Your task to perform on an android device: change the clock display to show seconds Image 0: 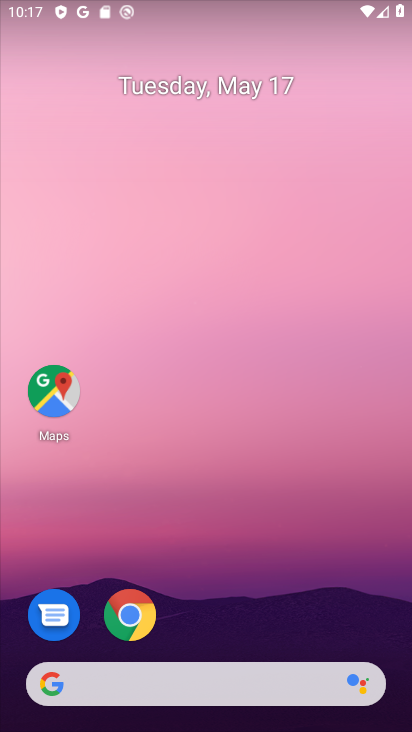
Step 0: drag from (248, 604) to (122, 97)
Your task to perform on an android device: change the clock display to show seconds Image 1: 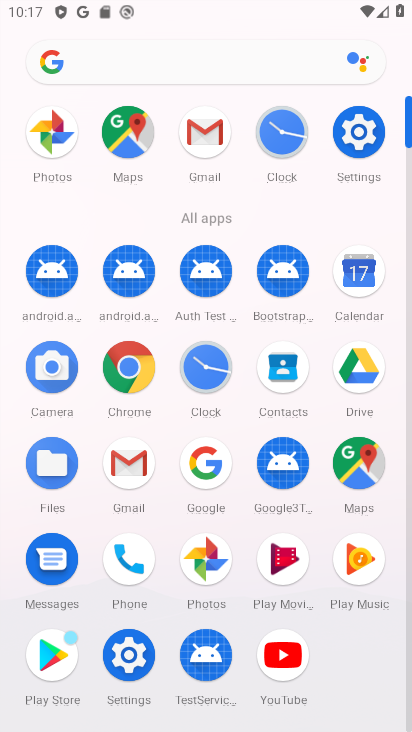
Step 1: click (281, 136)
Your task to perform on an android device: change the clock display to show seconds Image 2: 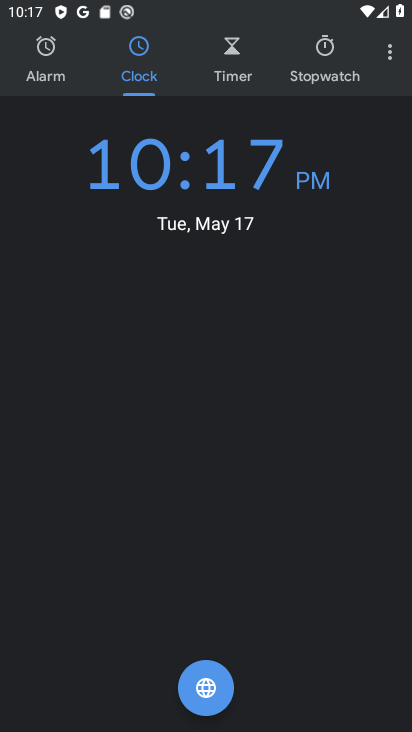
Step 2: click (387, 49)
Your task to perform on an android device: change the clock display to show seconds Image 3: 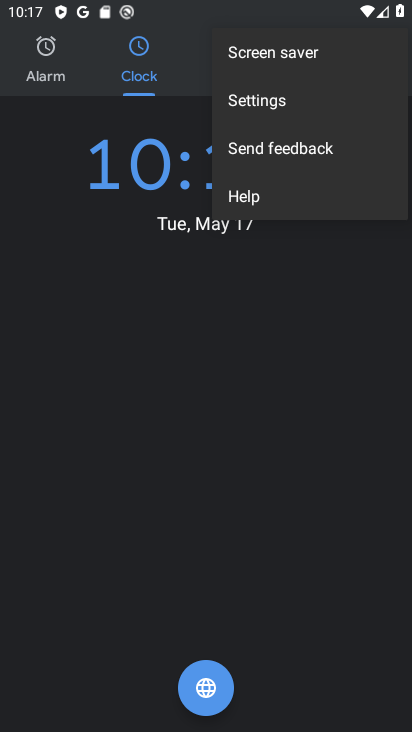
Step 3: click (290, 104)
Your task to perform on an android device: change the clock display to show seconds Image 4: 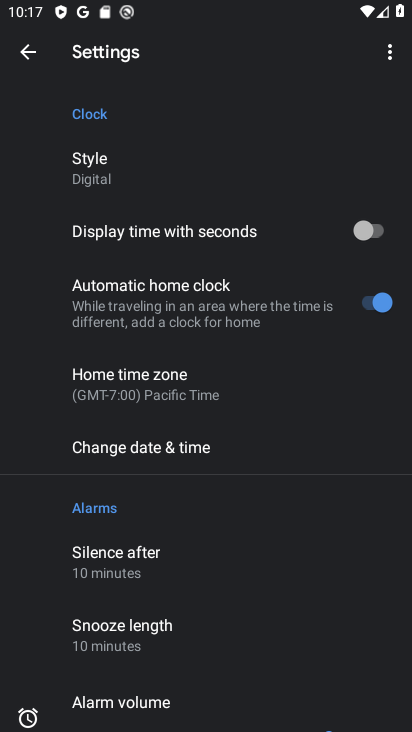
Step 4: click (371, 226)
Your task to perform on an android device: change the clock display to show seconds Image 5: 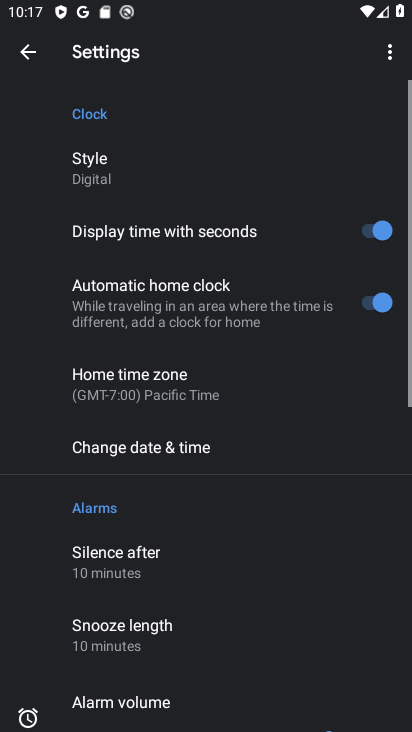
Step 5: task complete